Your task to perform on an android device: open chrome privacy settings Image 0: 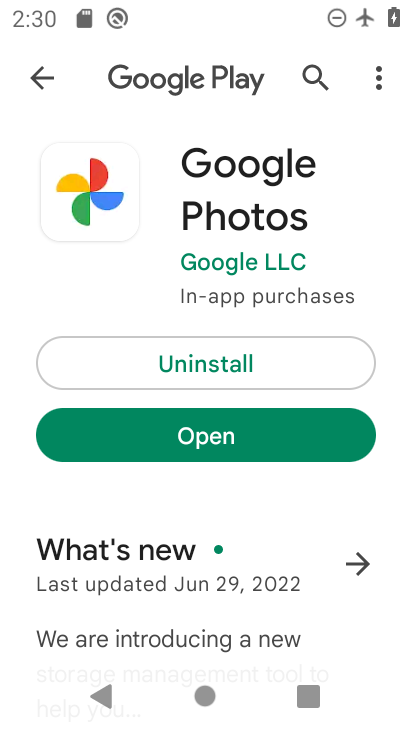
Step 0: press home button
Your task to perform on an android device: open chrome privacy settings Image 1: 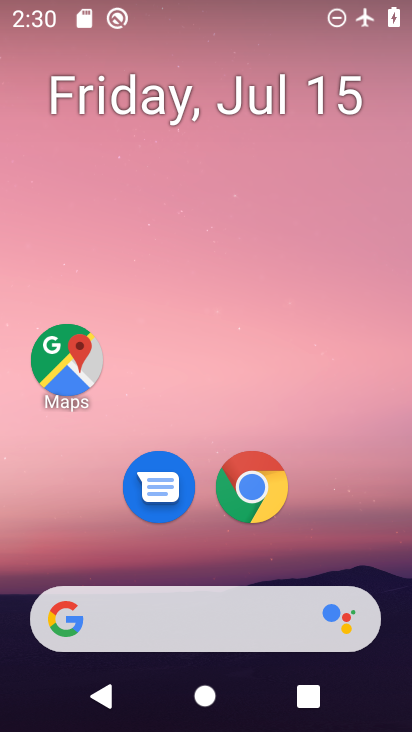
Step 1: drag from (222, 660) to (338, 123)
Your task to perform on an android device: open chrome privacy settings Image 2: 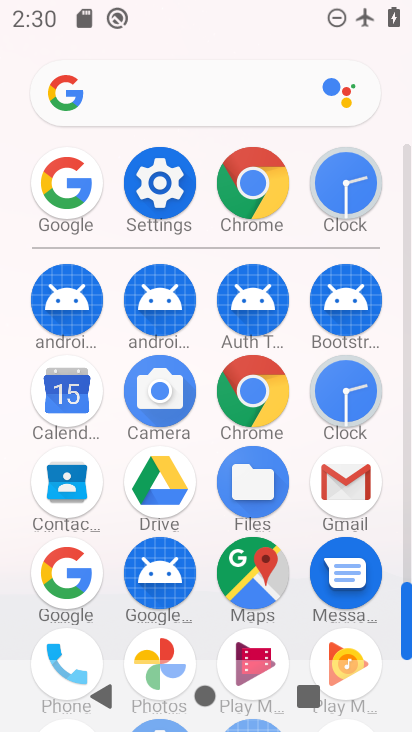
Step 2: click (162, 181)
Your task to perform on an android device: open chrome privacy settings Image 3: 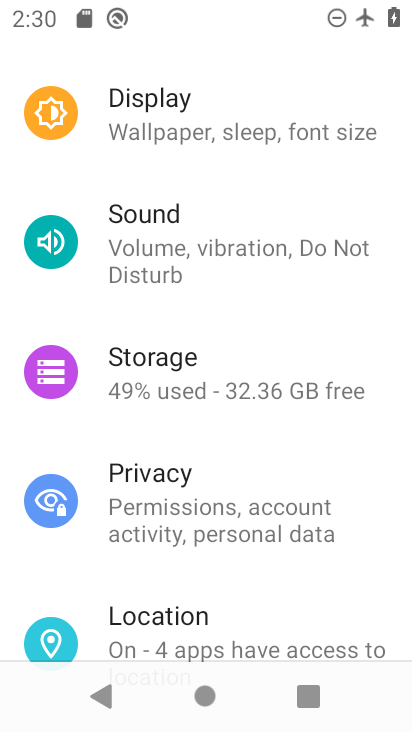
Step 3: drag from (160, 474) to (199, 220)
Your task to perform on an android device: open chrome privacy settings Image 4: 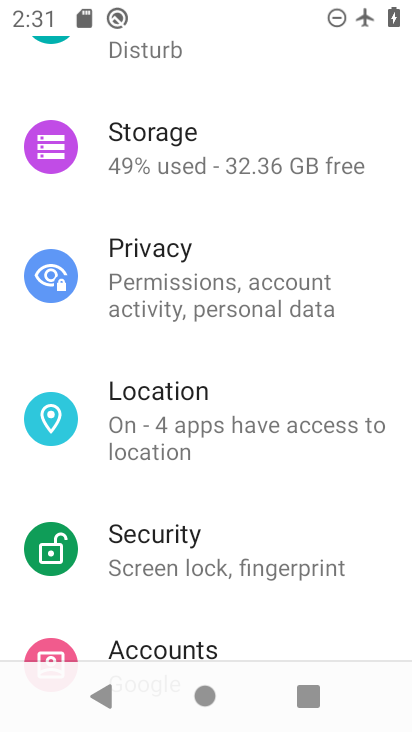
Step 4: press home button
Your task to perform on an android device: open chrome privacy settings Image 5: 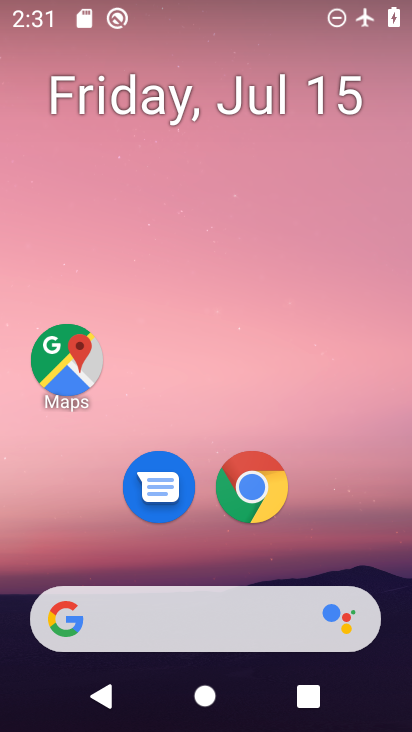
Step 5: drag from (257, 623) to (349, 170)
Your task to perform on an android device: open chrome privacy settings Image 6: 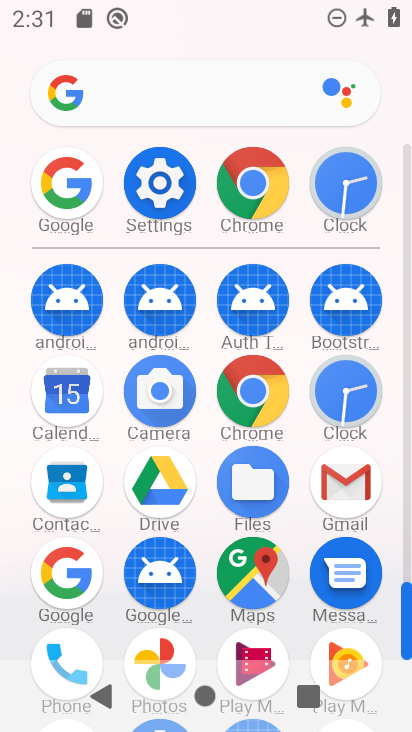
Step 6: click (261, 187)
Your task to perform on an android device: open chrome privacy settings Image 7: 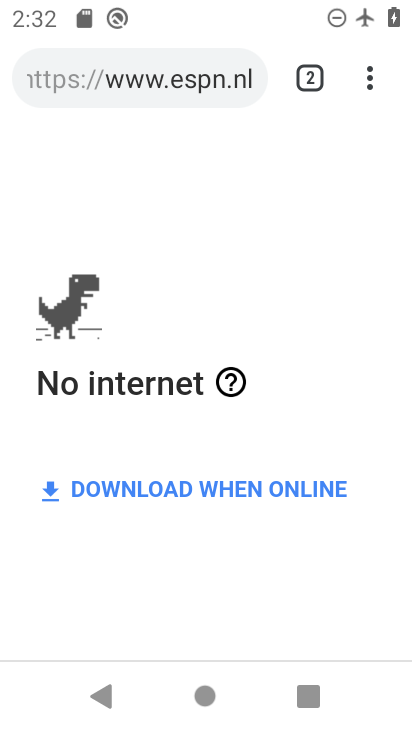
Step 7: click (370, 96)
Your task to perform on an android device: open chrome privacy settings Image 8: 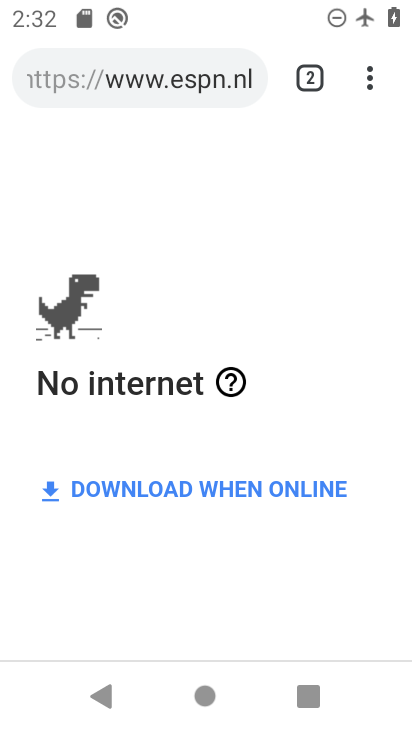
Step 8: click (372, 79)
Your task to perform on an android device: open chrome privacy settings Image 9: 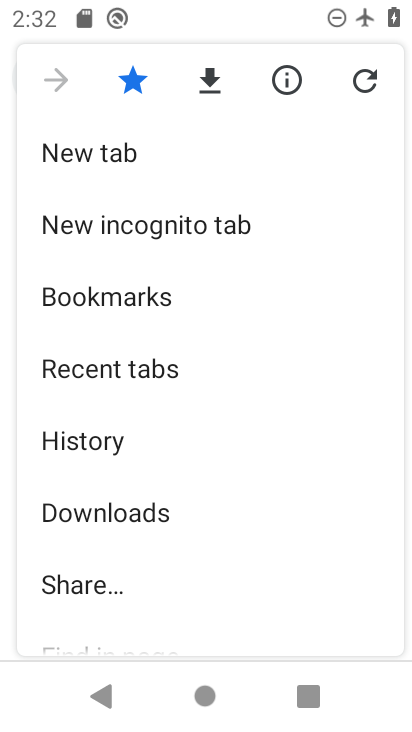
Step 9: drag from (252, 471) to (248, 13)
Your task to perform on an android device: open chrome privacy settings Image 10: 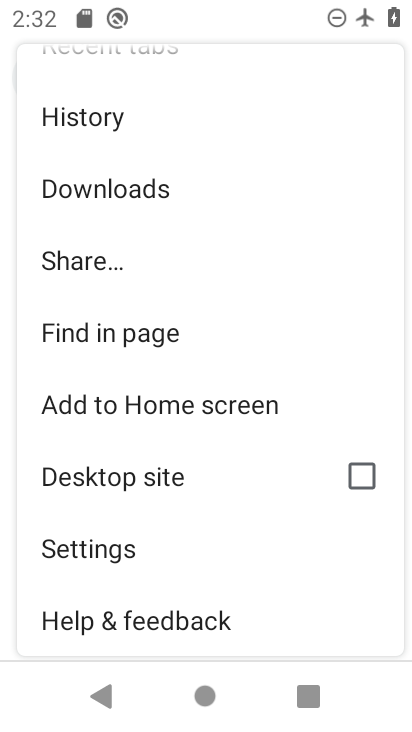
Step 10: click (129, 552)
Your task to perform on an android device: open chrome privacy settings Image 11: 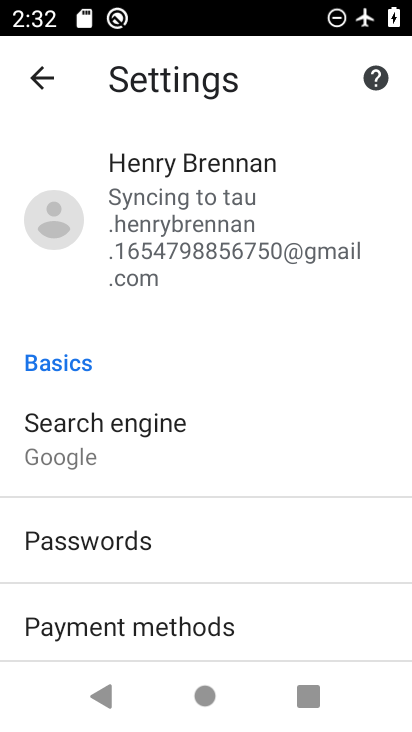
Step 11: drag from (129, 554) to (210, 172)
Your task to perform on an android device: open chrome privacy settings Image 12: 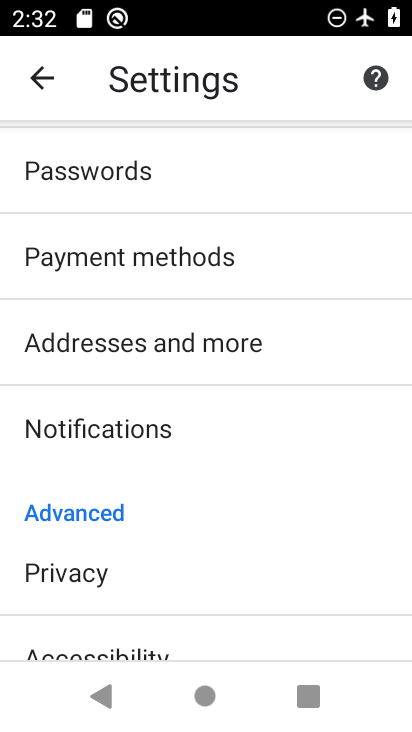
Step 12: drag from (218, 559) to (200, 130)
Your task to perform on an android device: open chrome privacy settings Image 13: 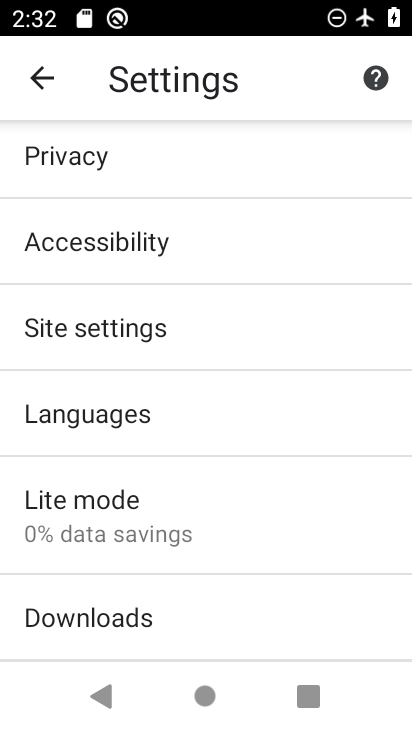
Step 13: click (105, 157)
Your task to perform on an android device: open chrome privacy settings Image 14: 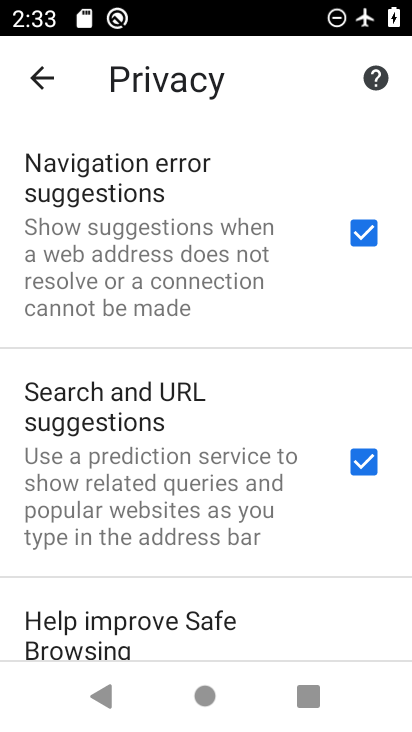
Step 14: task complete